Your task to perform on an android device: turn pop-ups off in chrome Image 0: 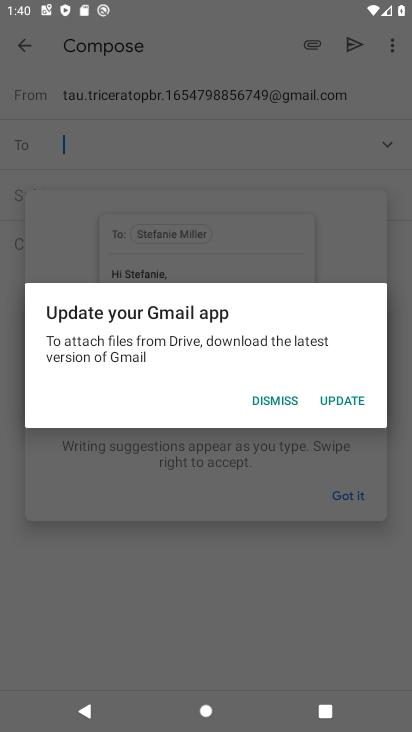
Step 0: click (289, 401)
Your task to perform on an android device: turn pop-ups off in chrome Image 1: 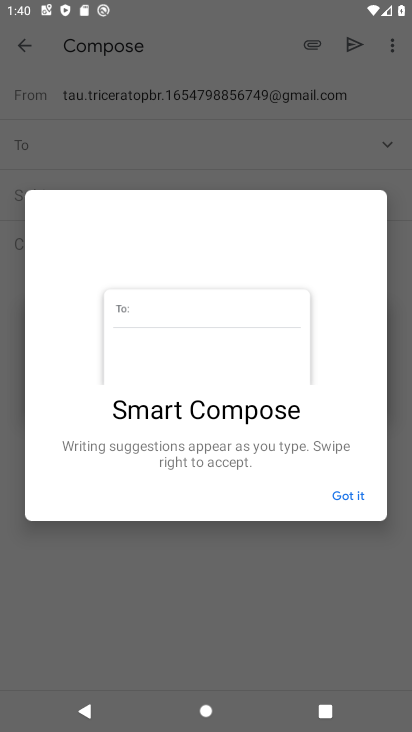
Step 1: click (345, 488)
Your task to perform on an android device: turn pop-ups off in chrome Image 2: 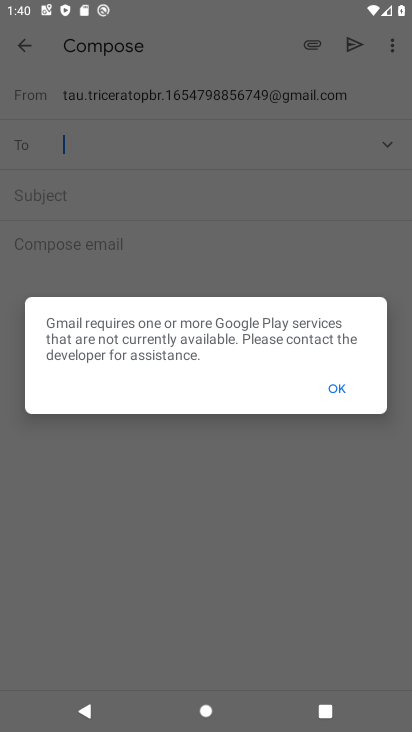
Step 2: click (343, 391)
Your task to perform on an android device: turn pop-ups off in chrome Image 3: 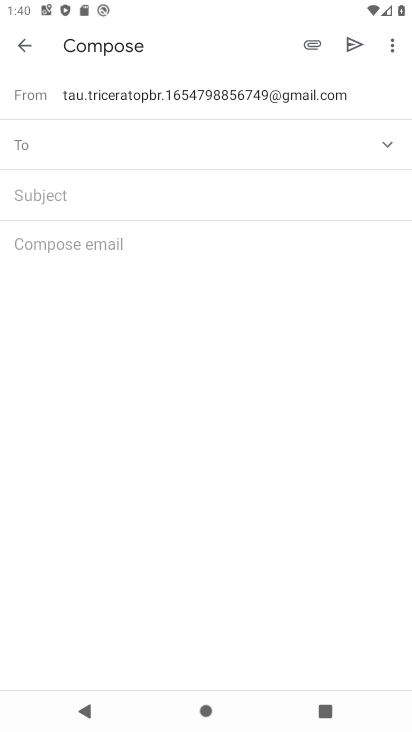
Step 3: press back button
Your task to perform on an android device: turn pop-ups off in chrome Image 4: 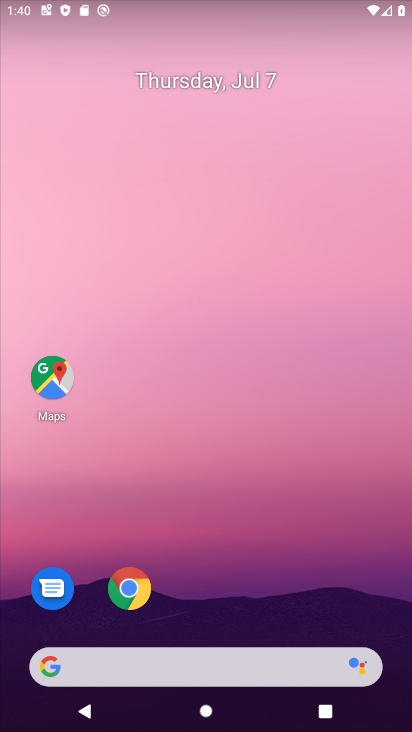
Step 4: click (132, 590)
Your task to perform on an android device: turn pop-ups off in chrome Image 5: 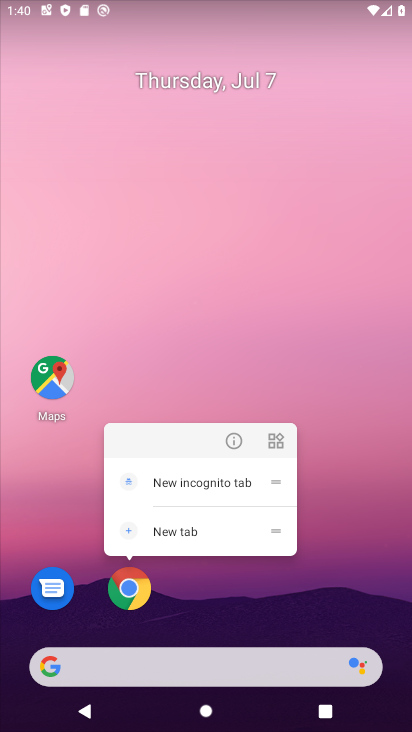
Step 5: click (126, 594)
Your task to perform on an android device: turn pop-ups off in chrome Image 6: 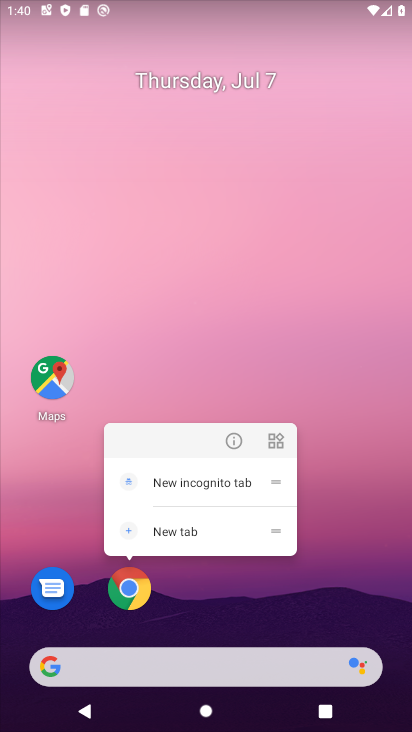
Step 6: click (125, 595)
Your task to perform on an android device: turn pop-ups off in chrome Image 7: 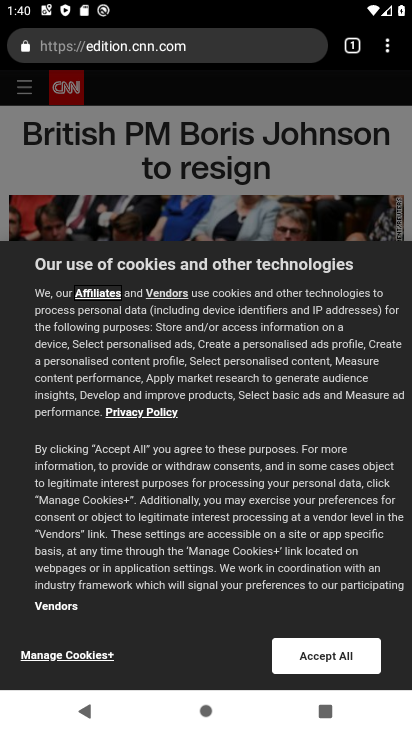
Step 7: drag from (394, 43) to (236, 514)
Your task to perform on an android device: turn pop-ups off in chrome Image 8: 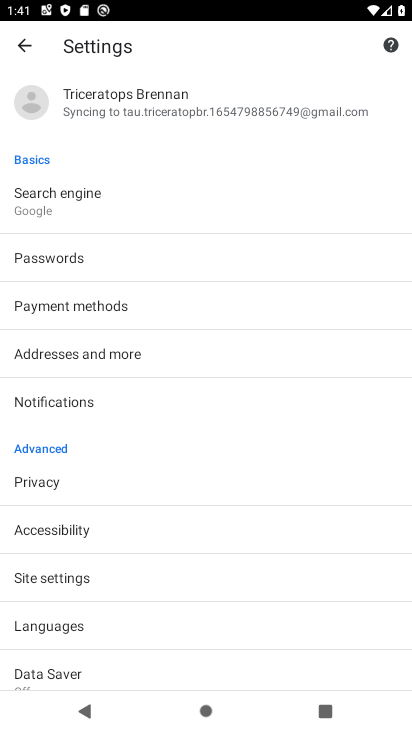
Step 8: click (29, 587)
Your task to perform on an android device: turn pop-ups off in chrome Image 9: 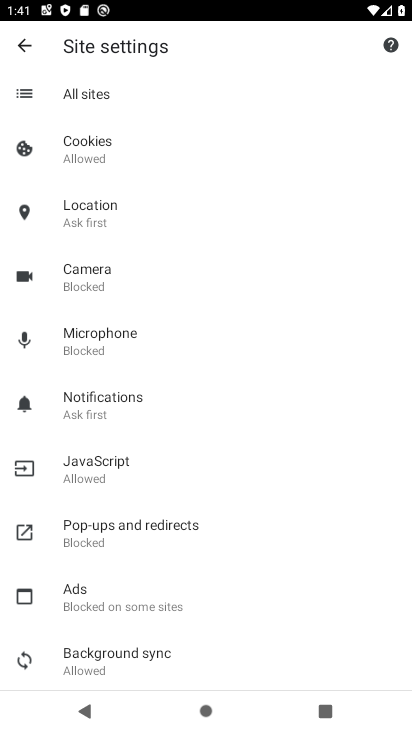
Step 9: click (103, 517)
Your task to perform on an android device: turn pop-ups off in chrome Image 10: 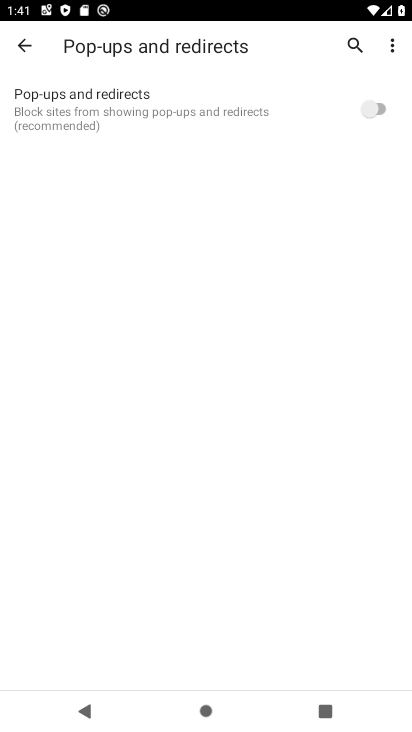
Step 10: task complete